Your task to perform on an android device: check out phone information Image 0: 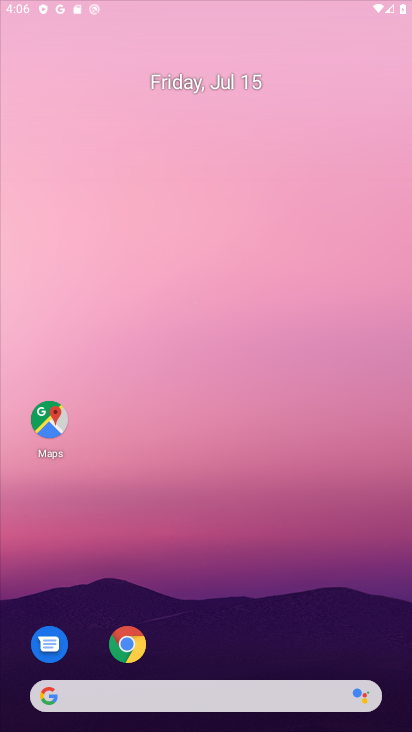
Step 0: press home button
Your task to perform on an android device: check out phone information Image 1: 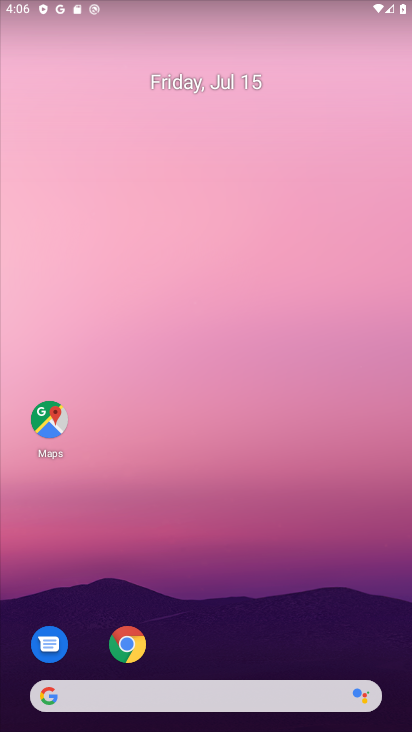
Step 1: drag from (215, 676) to (217, 50)
Your task to perform on an android device: check out phone information Image 2: 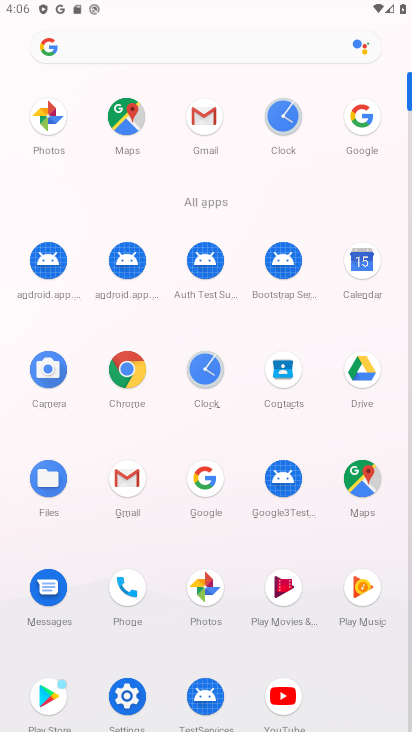
Step 2: click (126, 685)
Your task to perform on an android device: check out phone information Image 3: 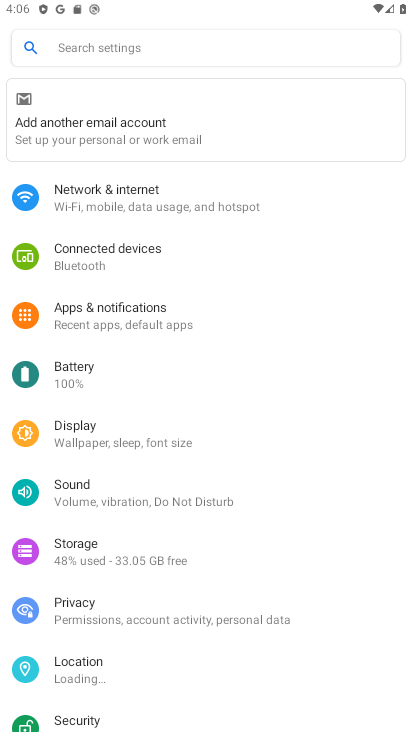
Step 3: drag from (188, 651) to (175, 28)
Your task to perform on an android device: check out phone information Image 4: 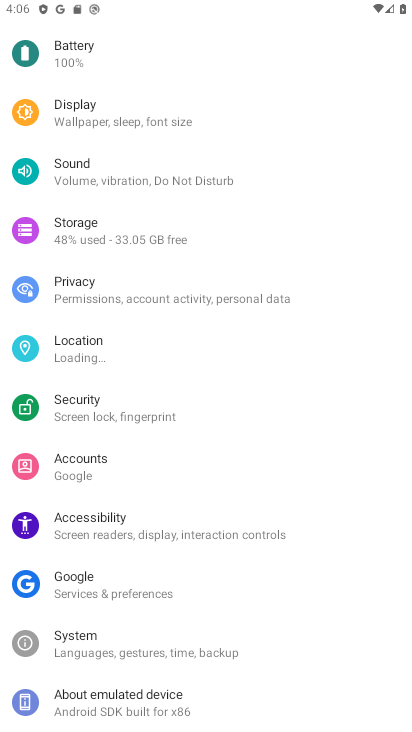
Step 4: click (125, 681)
Your task to perform on an android device: check out phone information Image 5: 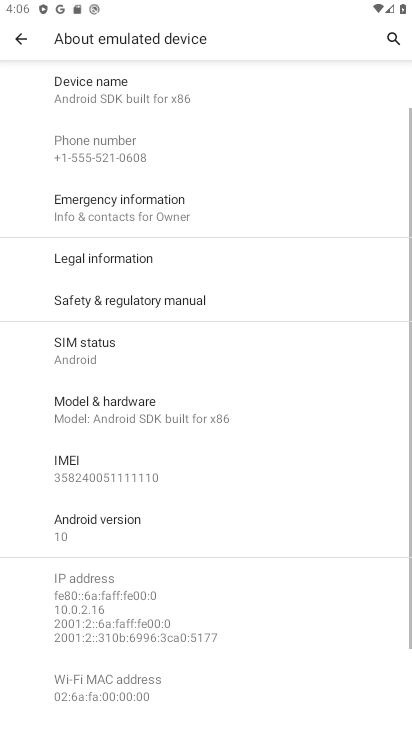
Step 5: task complete